Your task to perform on an android device: Open Google Chrome and open the bookmarks view Image 0: 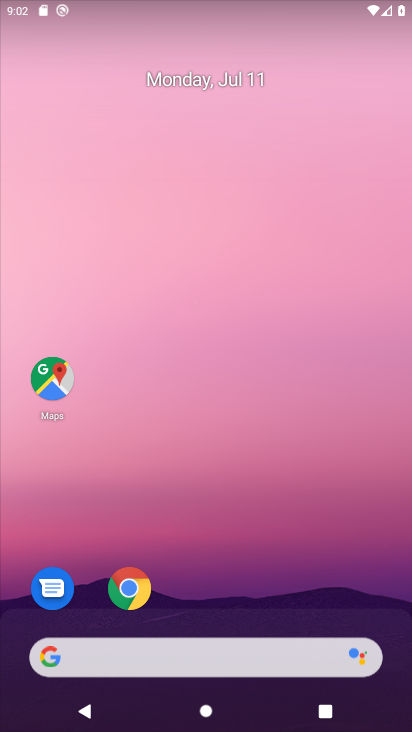
Step 0: drag from (258, 616) to (223, 466)
Your task to perform on an android device: Open Google Chrome and open the bookmarks view Image 1: 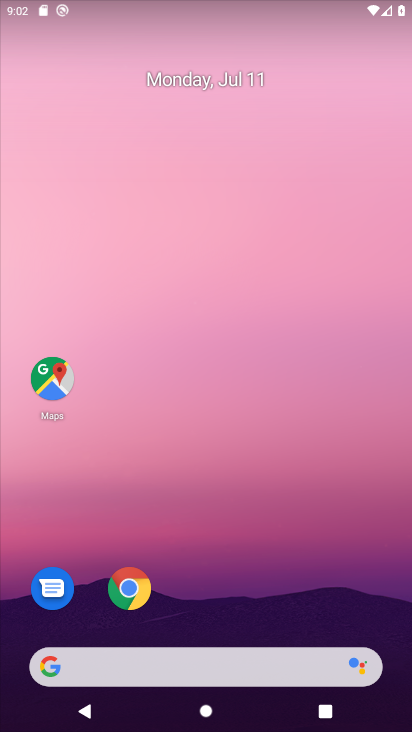
Step 1: drag from (215, 647) to (206, 221)
Your task to perform on an android device: Open Google Chrome and open the bookmarks view Image 2: 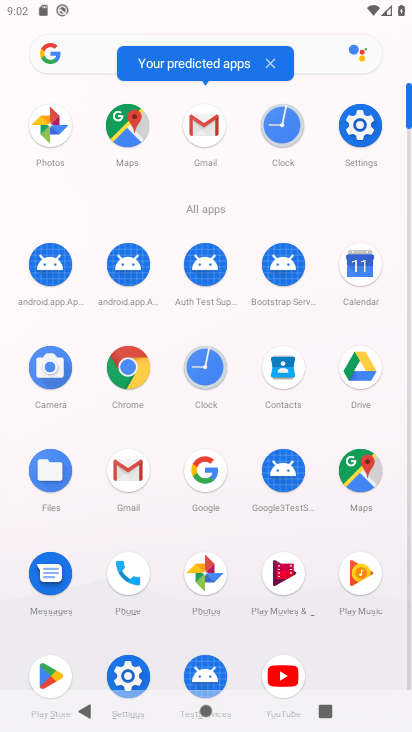
Step 2: click (124, 375)
Your task to perform on an android device: Open Google Chrome and open the bookmarks view Image 3: 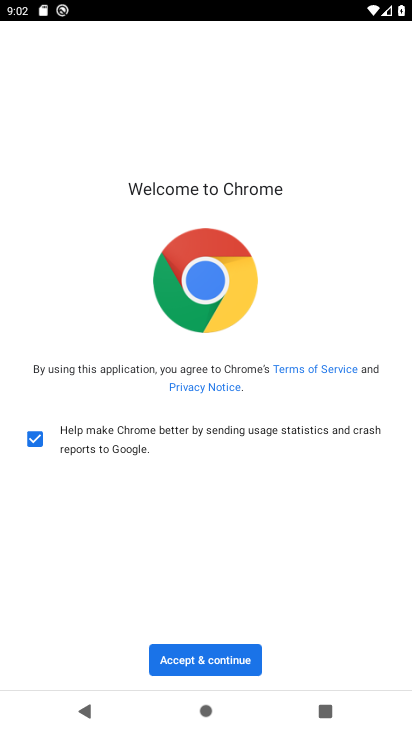
Step 3: click (226, 667)
Your task to perform on an android device: Open Google Chrome and open the bookmarks view Image 4: 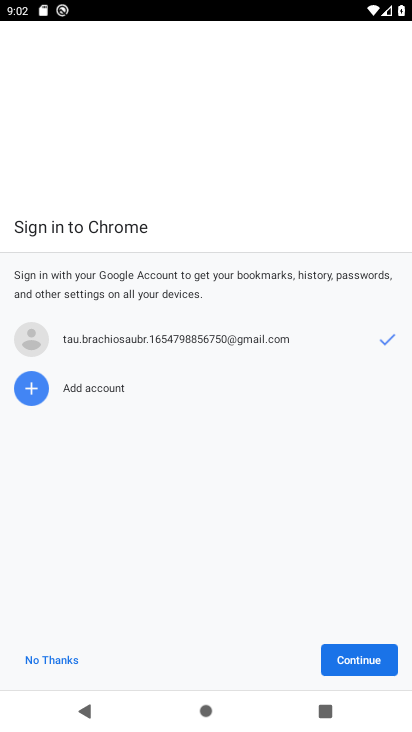
Step 4: click (352, 659)
Your task to perform on an android device: Open Google Chrome and open the bookmarks view Image 5: 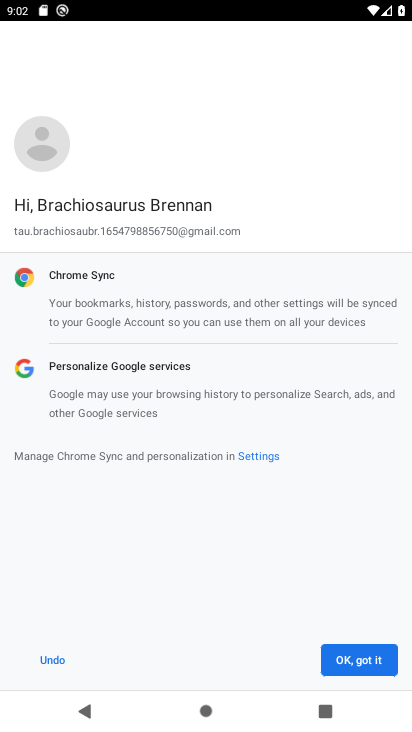
Step 5: click (349, 652)
Your task to perform on an android device: Open Google Chrome and open the bookmarks view Image 6: 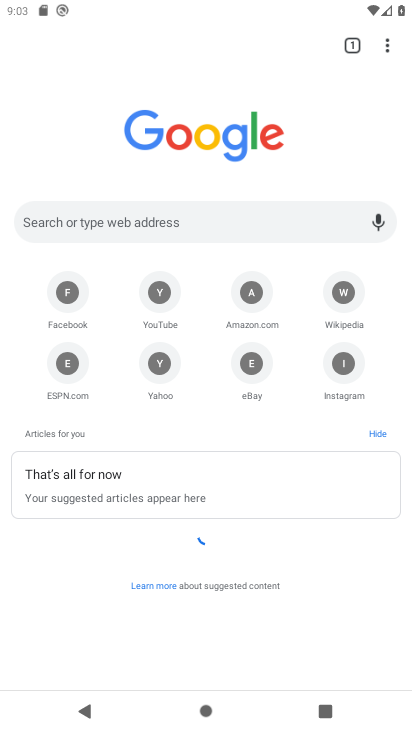
Step 6: click (384, 32)
Your task to perform on an android device: Open Google Chrome and open the bookmarks view Image 7: 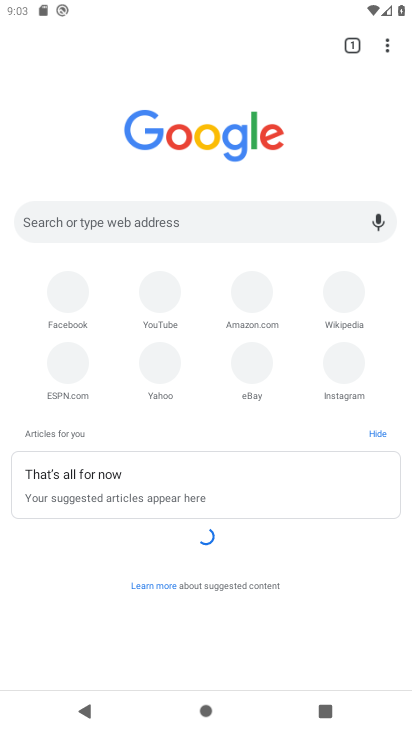
Step 7: click (388, 52)
Your task to perform on an android device: Open Google Chrome and open the bookmarks view Image 8: 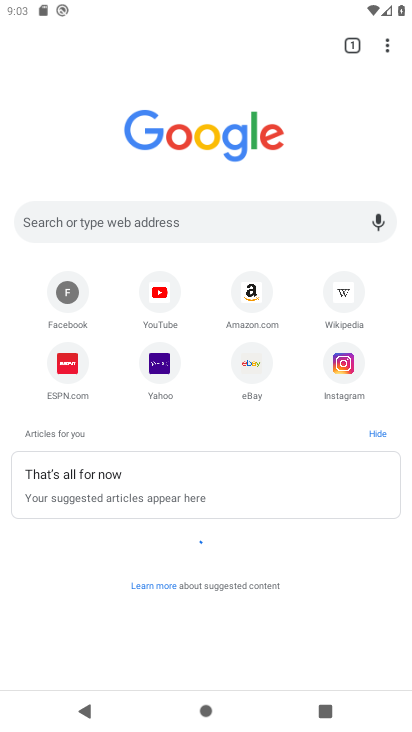
Step 8: click (388, 44)
Your task to perform on an android device: Open Google Chrome and open the bookmarks view Image 9: 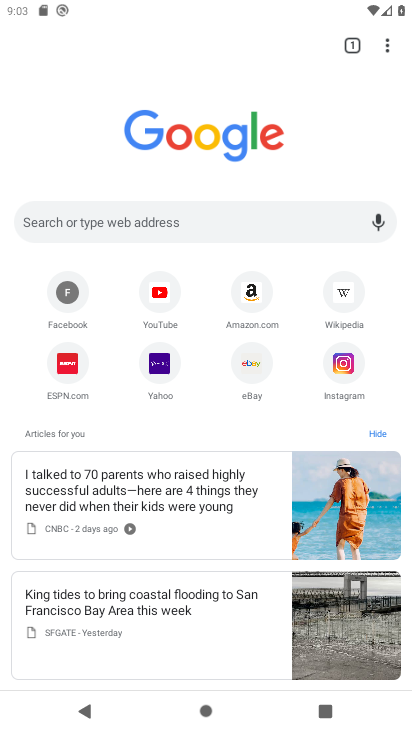
Step 9: click (381, 35)
Your task to perform on an android device: Open Google Chrome and open the bookmarks view Image 10: 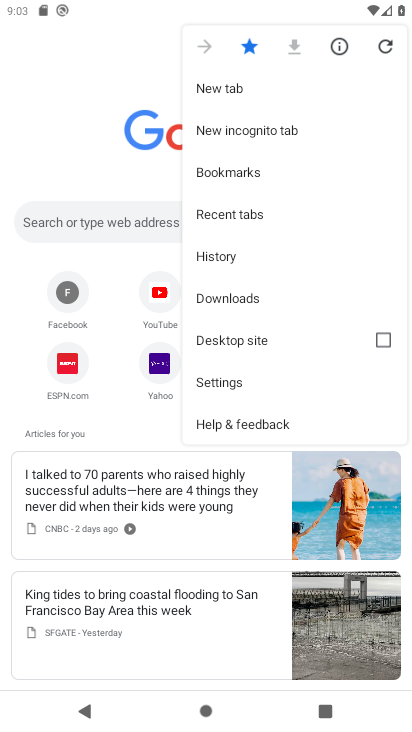
Step 10: click (250, 179)
Your task to perform on an android device: Open Google Chrome and open the bookmarks view Image 11: 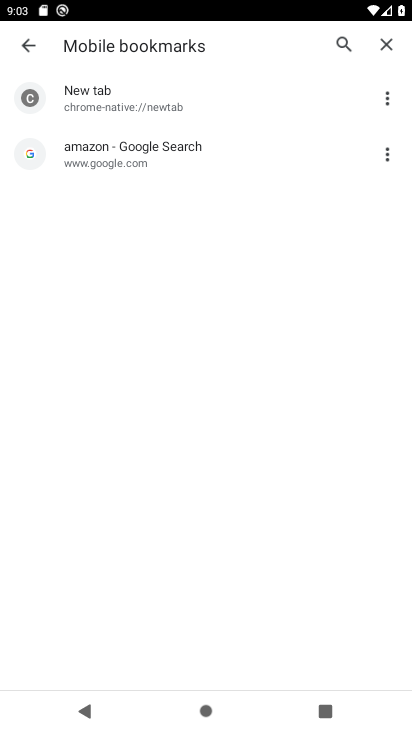
Step 11: task complete